Your task to perform on an android device: turn on bluetooth scan Image 0: 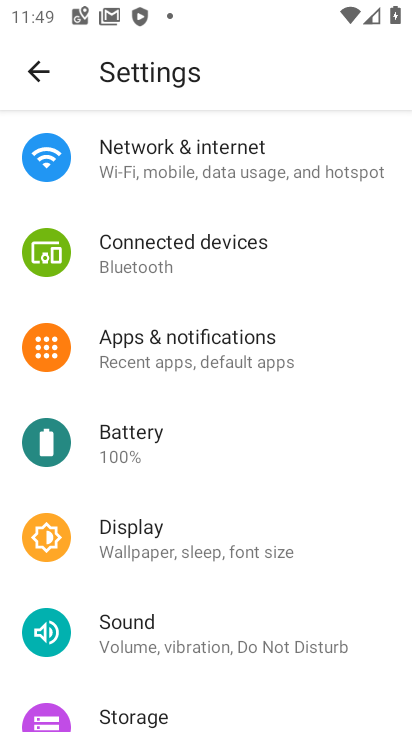
Step 0: press home button
Your task to perform on an android device: turn on bluetooth scan Image 1: 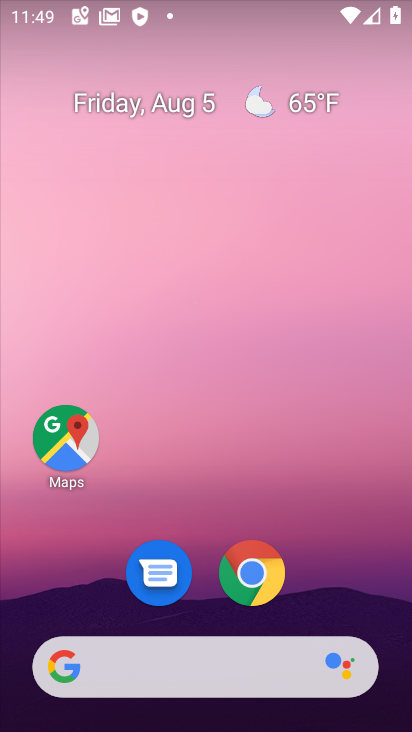
Step 1: drag from (234, 510) to (230, 182)
Your task to perform on an android device: turn on bluetooth scan Image 2: 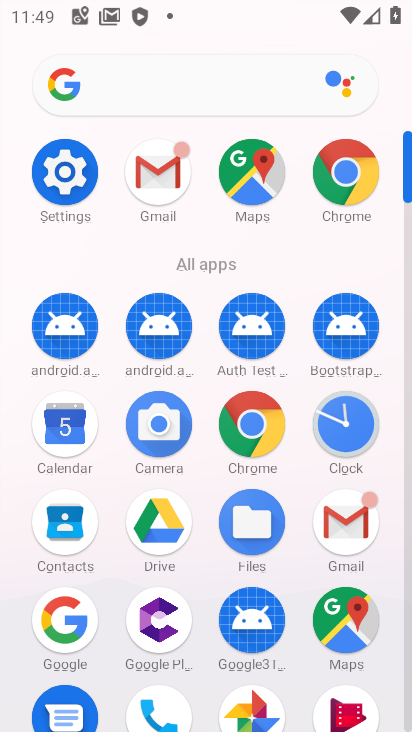
Step 2: click (73, 174)
Your task to perform on an android device: turn on bluetooth scan Image 3: 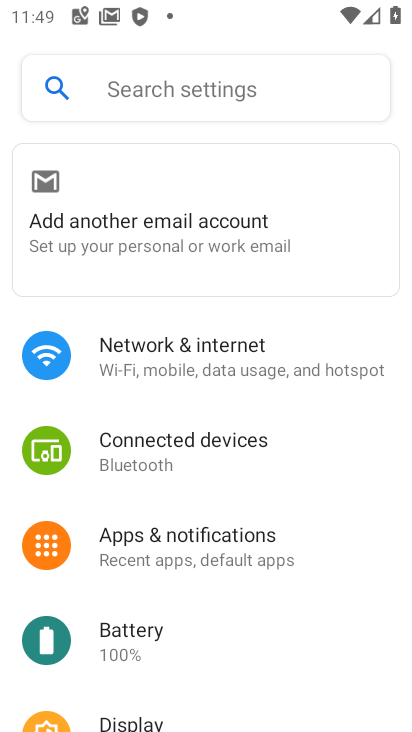
Step 3: task complete